Your task to perform on an android device: turn off location history Image 0: 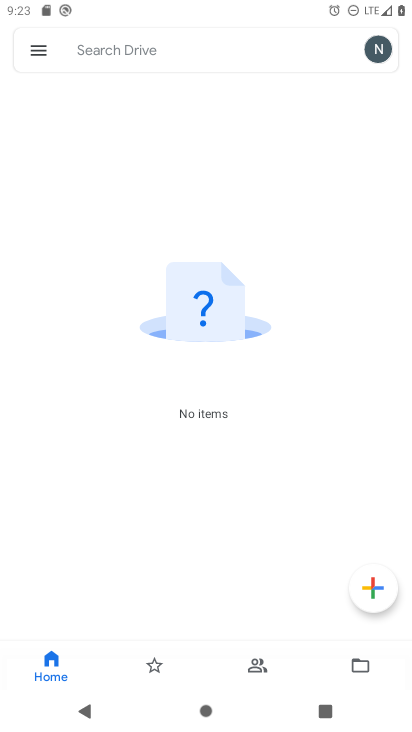
Step 0: press home button
Your task to perform on an android device: turn off location history Image 1: 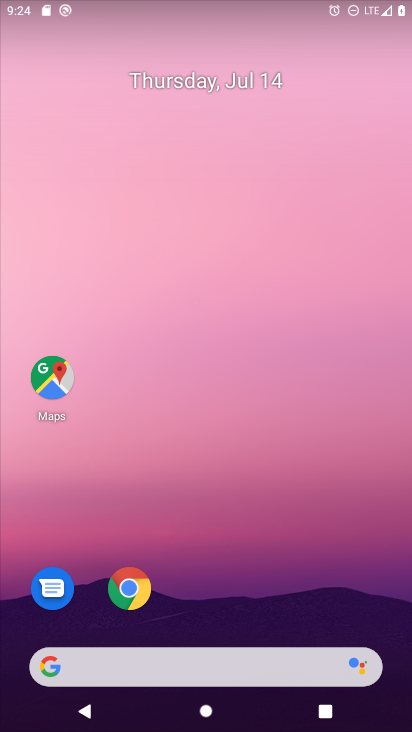
Step 1: drag from (292, 603) to (293, 88)
Your task to perform on an android device: turn off location history Image 2: 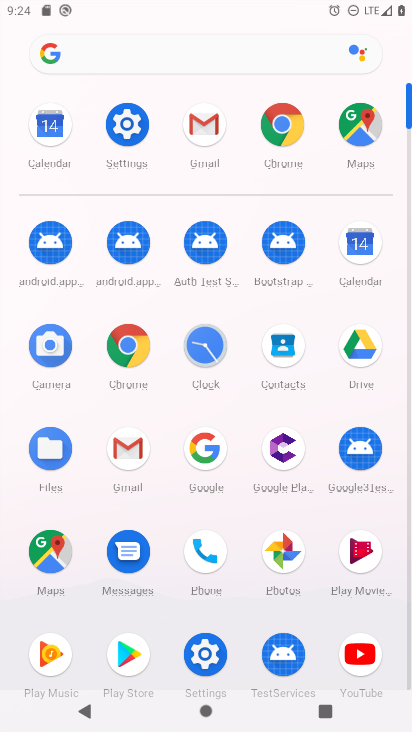
Step 2: click (118, 114)
Your task to perform on an android device: turn off location history Image 3: 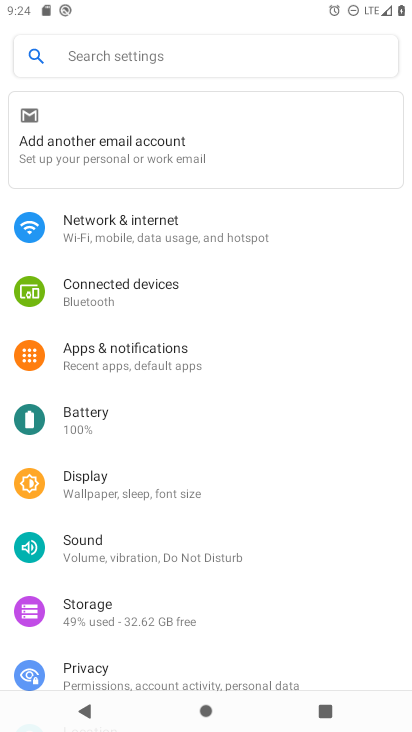
Step 3: drag from (86, 601) to (193, 263)
Your task to perform on an android device: turn off location history Image 4: 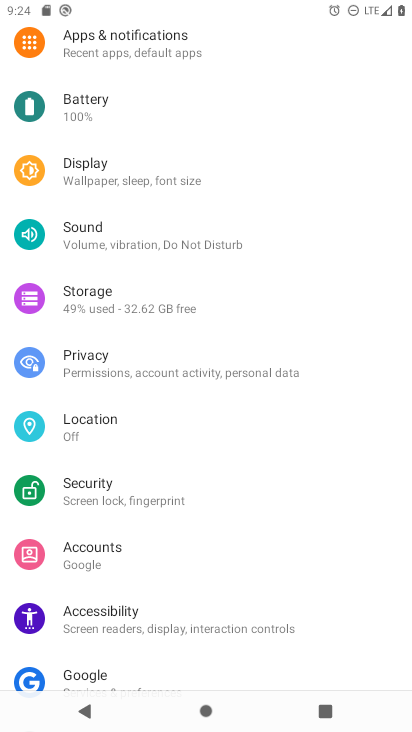
Step 4: click (116, 442)
Your task to perform on an android device: turn off location history Image 5: 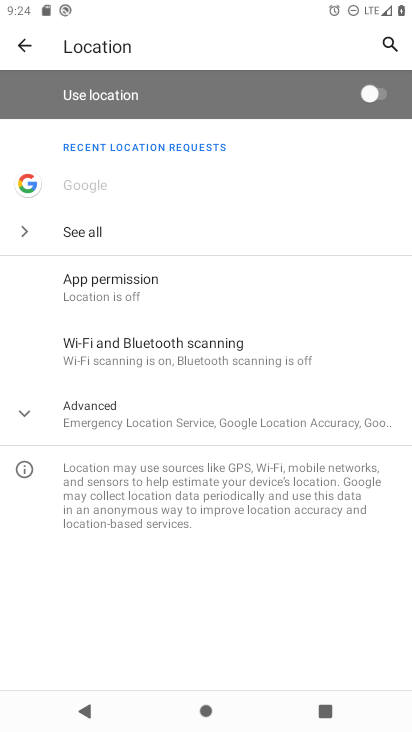
Step 5: task complete